Your task to perform on an android device: What's on my calendar today? Image 0: 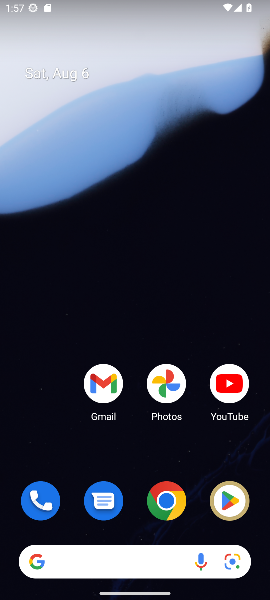
Step 0: press home button
Your task to perform on an android device: What's on my calendar today? Image 1: 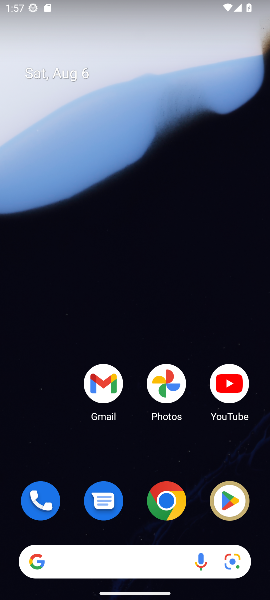
Step 1: drag from (128, 531) to (143, 103)
Your task to perform on an android device: What's on my calendar today? Image 2: 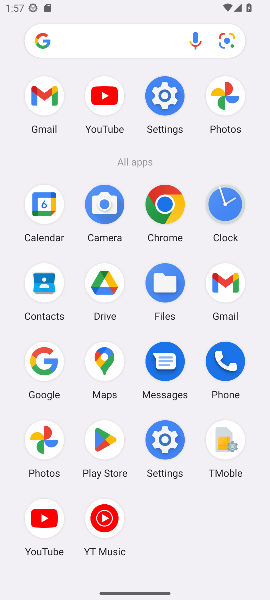
Step 2: click (41, 196)
Your task to perform on an android device: What's on my calendar today? Image 3: 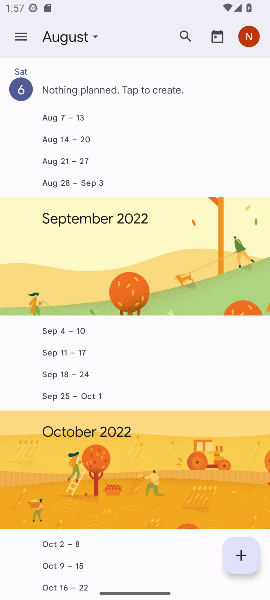
Step 3: click (90, 36)
Your task to perform on an android device: What's on my calendar today? Image 4: 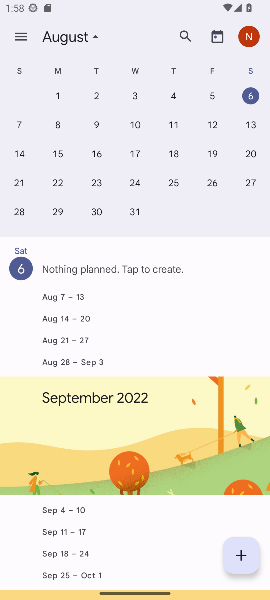
Step 4: click (249, 90)
Your task to perform on an android device: What's on my calendar today? Image 5: 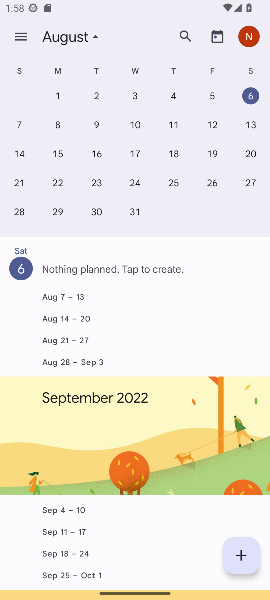
Step 5: task complete